Your task to perform on an android device: Show me popular videos on Youtube Image 0: 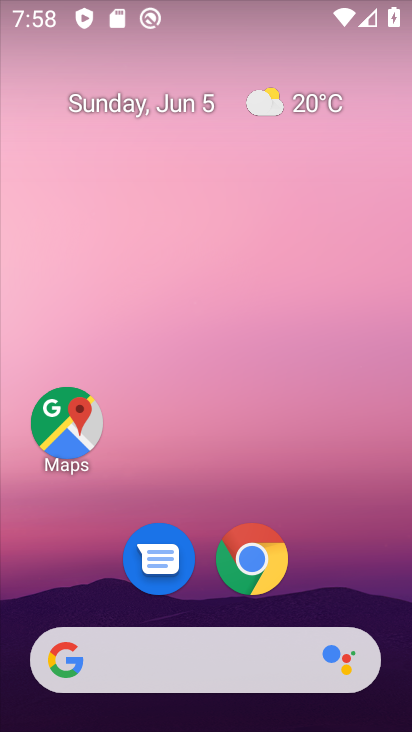
Step 0: drag from (330, 539) to (324, 308)
Your task to perform on an android device: Show me popular videos on Youtube Image 1: 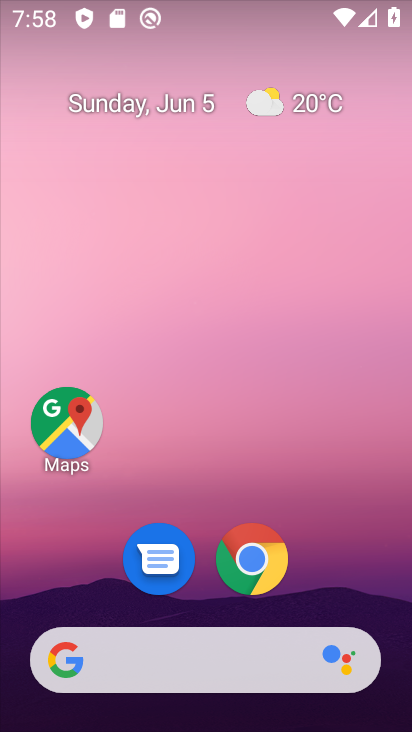
Step 1: drag from (310, 581) to (297, 269)
Your task to perform on an android device: Show me popular videos on Youtube Image 2: 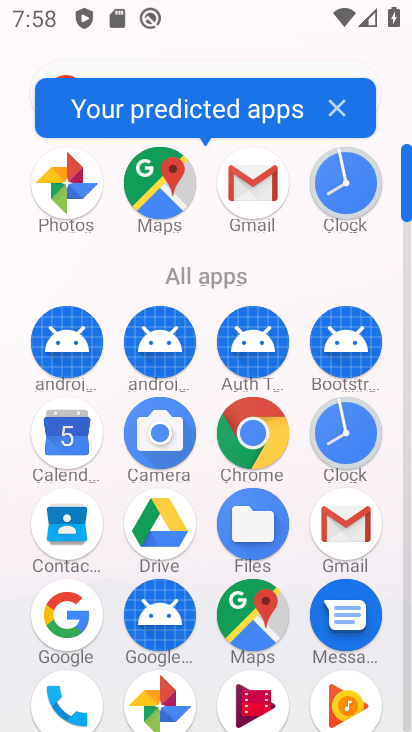
Step 2: drag from (282, 571) to (322, 191)
Your task to perform on an android device: Show me popular videos on Youtube Image 3: 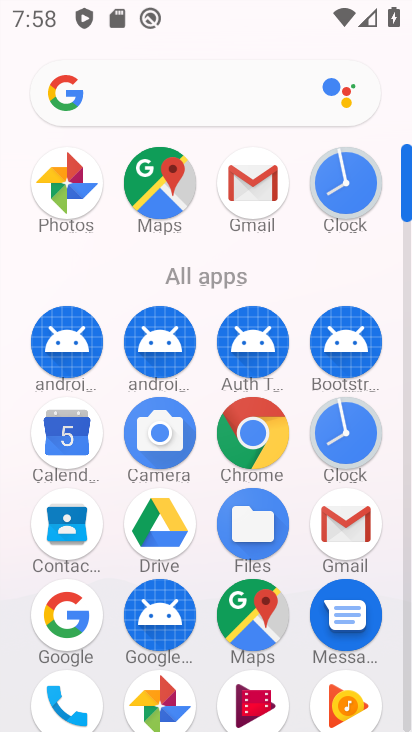
Step 3: drag from (301, 624) to (315, 440)
Your task to perform on an android device: Show me popular videos on Youtube Image 4: 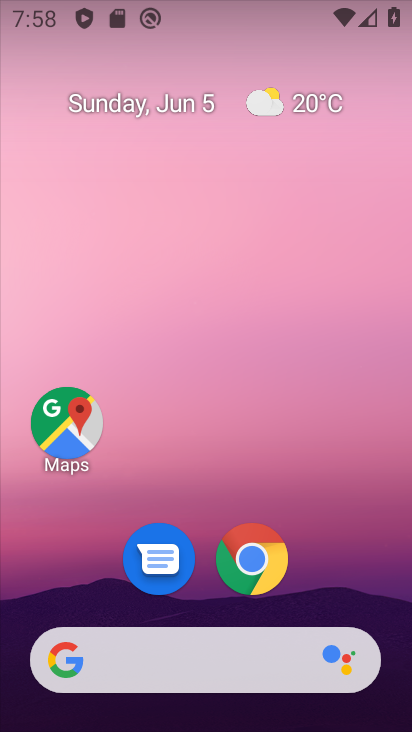
Step 4: drag from (282, 669) to (265, 158)
Your task to perform on an android device: Show me popular videos on Youtube Image 5: 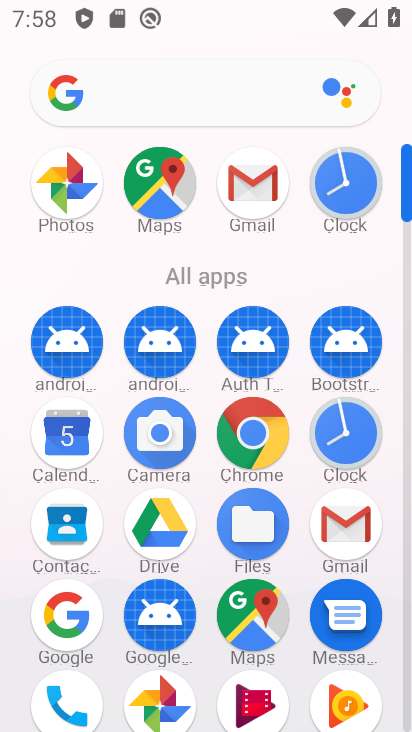
Step 5: drag from (285, 553) to (329, 147)
Your task to perform on an android device: Show me popular videos on Youtube Image 6: 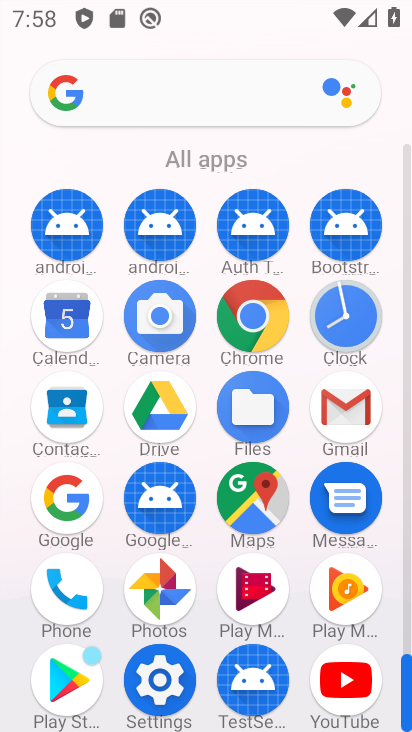
Step 6: click (338, 661)
Your task to perform on an android device: Show me popular videos on Youtube Image 7: 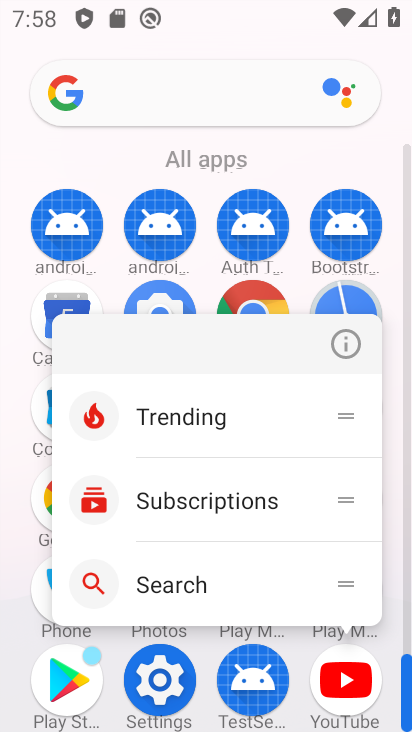
Step 7: click (335, 664)
Your task to perform on an android device: Show me popular videos on Youtube Image 8: 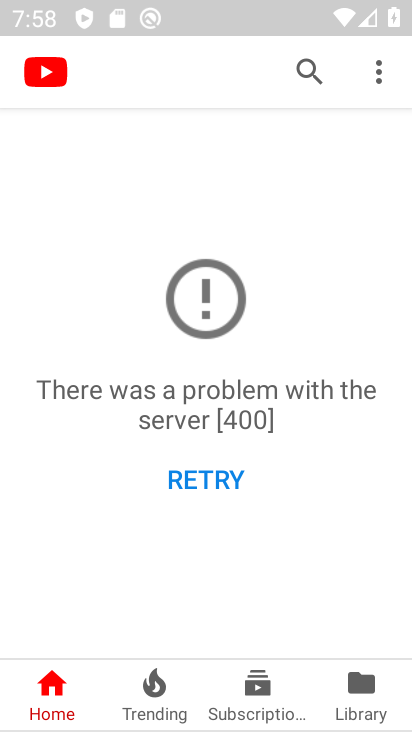
Step 8: click (303, 64)
Your task to perform on an android device: Show me popular videos on Youtube Image 9: 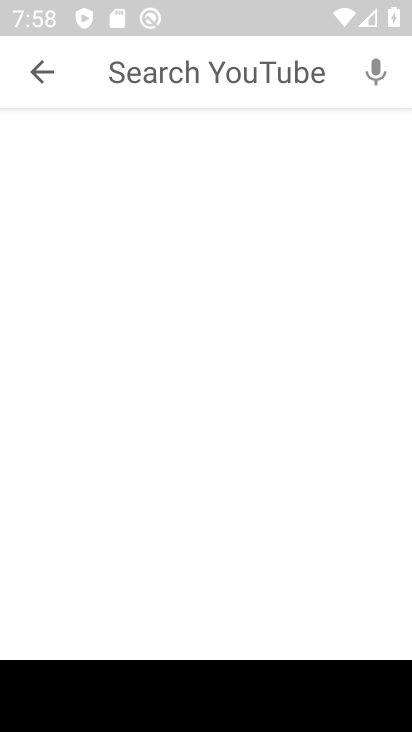
Step 9: type "india"
Your task to perform on an android device: Show me popular videos on Youtube Image 10: 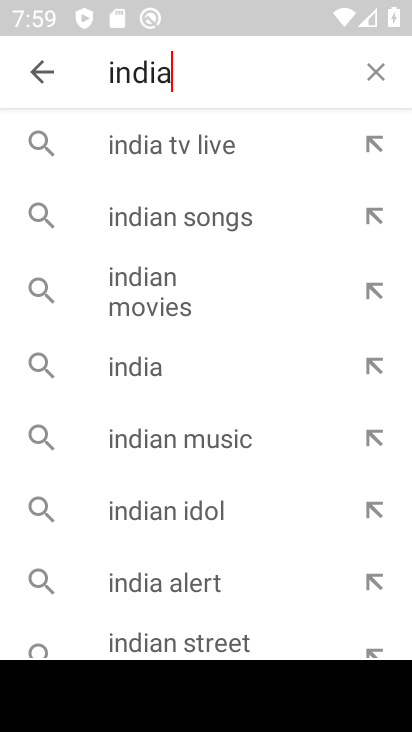
Step 10: click (177, 271)
Your task to perform on an android device: Show me popular videos on Youtube Image 11: 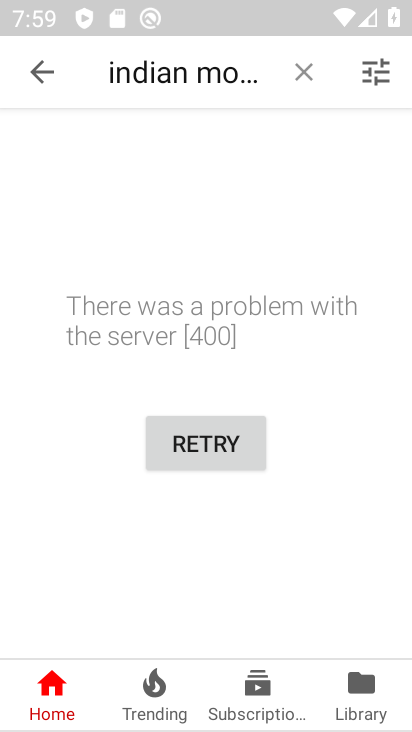
Step 11: task complete